Your task to perform on an android device: Open maps Image 0: 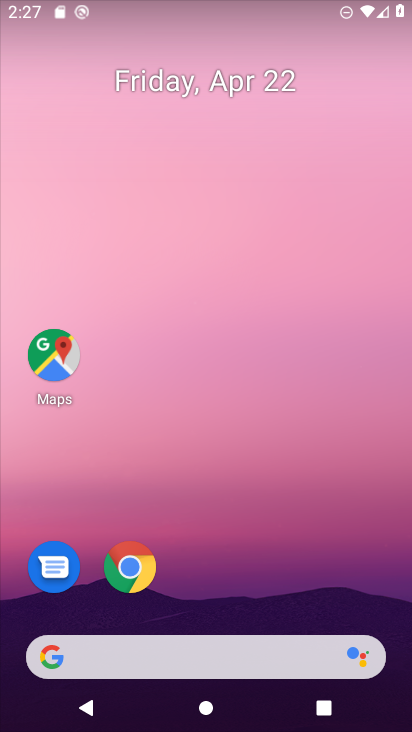
Step 0: click (65, 360)
Your task to perform on an android device: Open maps Image 1: 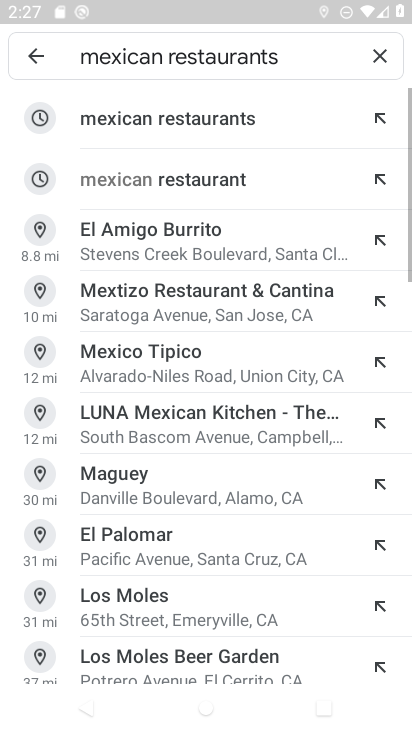
Step 1: task complete